Your task to perform on an android device: open a new tab in the chrome app Image 0: 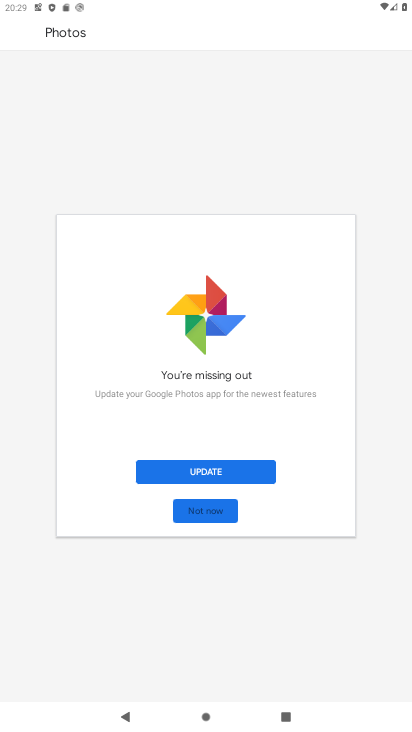
Step 0: press home button
Your task to perform on an android device: open a new tab in the chrome app Image 1: 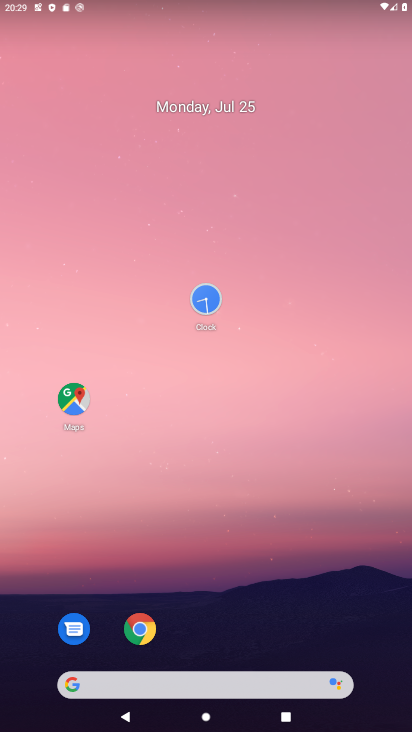
Step 1: click (142, 628)
Your task to perform on an android device: open a new tab in the chrome app Image 2: 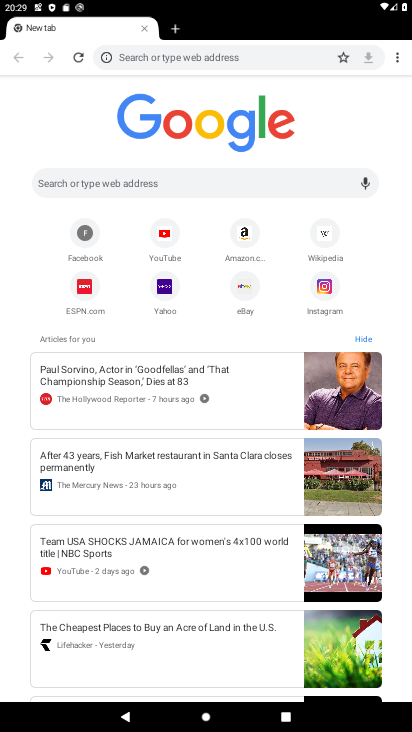
Step 2: click (178, 35)
Your task to perform on an android device: open a new tab in the chrome app Image 3: 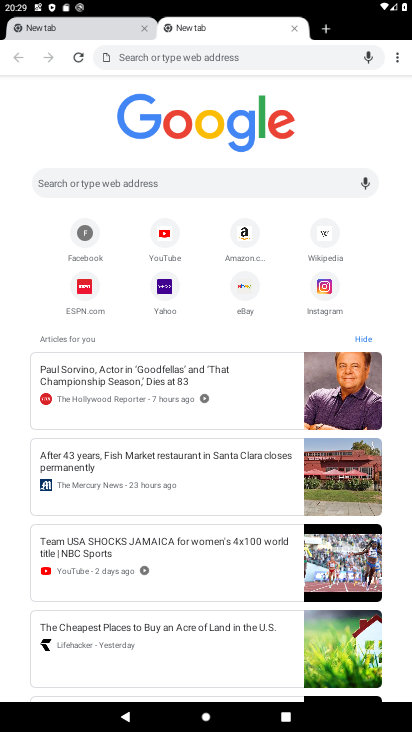
Step 3: task complete